Your task to perform on an android device: change the upload size in google photos Image 0: 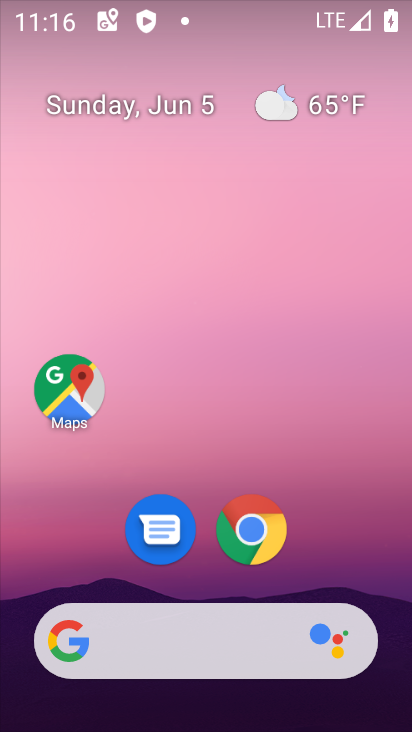
Step 0: drag from (240, 672) to (247, 41)
Your task to perform on an android device: change the upload size in google photos Image 1: 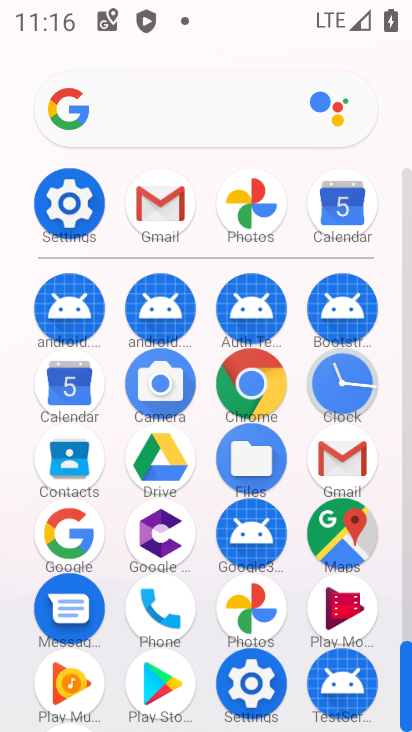
Step 1: click (276, 607)
Your task to perform on an android device: change the upload size in google photos Image 2: 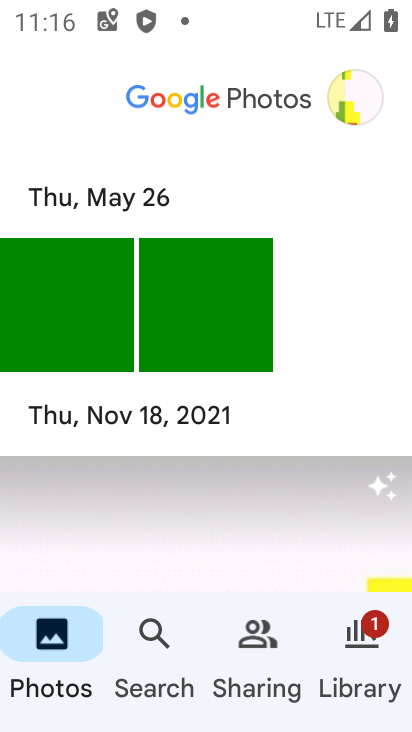
Step 2: click (359, 111)
Your task to perform on an android device: change the upload size in google photos Image 3: 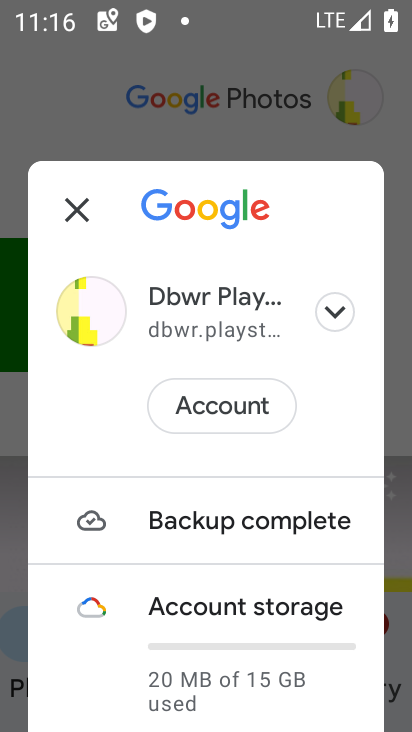
Step 3: drag from (279, 531) to (342, 135)
Your task to perform on an android device: change the upload size in google photos Image 4: 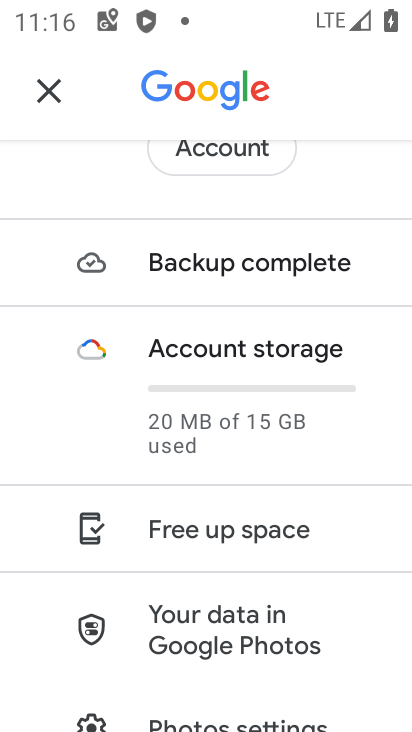
Step 4: click (253, 717)
Your task to perform on an android device: change the upload size in google photos Image 5: 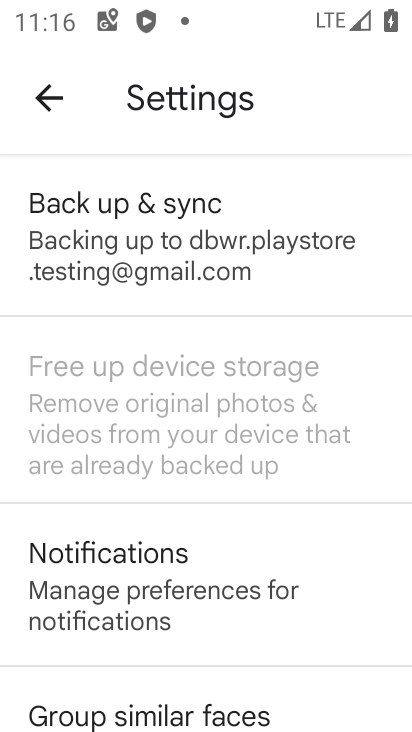
Step 5: drag from (299, 675) to (400, 99)
Your task to perform on an android device: change the upload size in google photos Image 6: 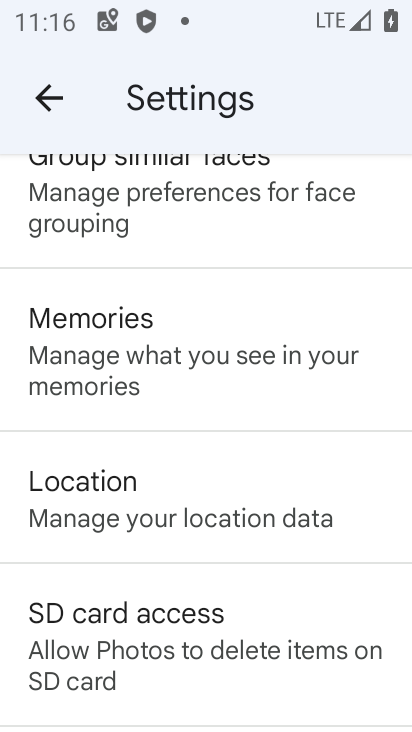
Step 6: drag from (327, 262) to (387, 726)
Your task to perform on an android device: change the upload size in google photos Image 7: 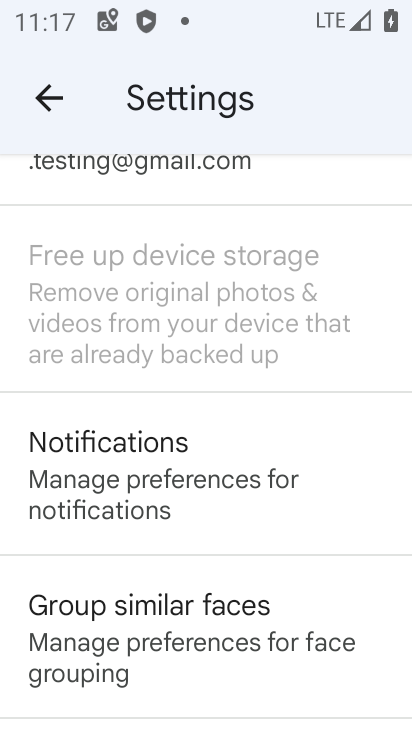
Step 7: drag from (286, 238) to (286, 640)
Your task to perform on an android device: change the upload size in google photos Image 8: 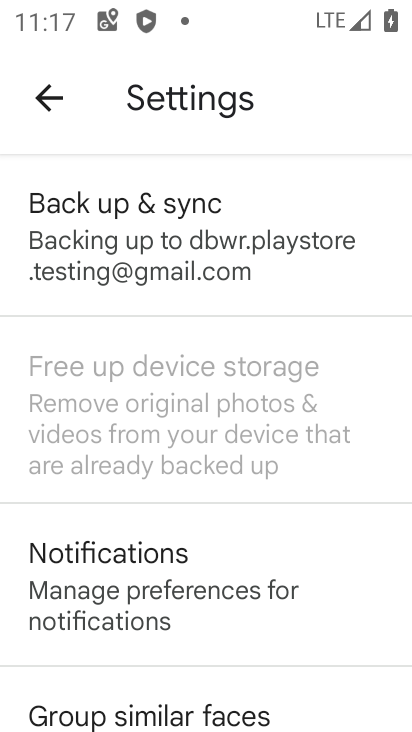
Step 8: drag from (262, 581) to (251, 131)
Your task to perform on an android device: change the upload size in google photos Image 9: 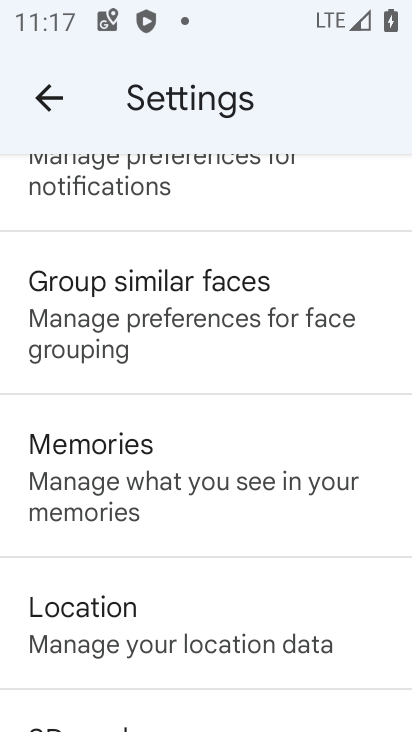
Step 9: drag from (302, 186) to (253, 720)
Your task to perform on an android device: change the upload size in google photos Image 10: 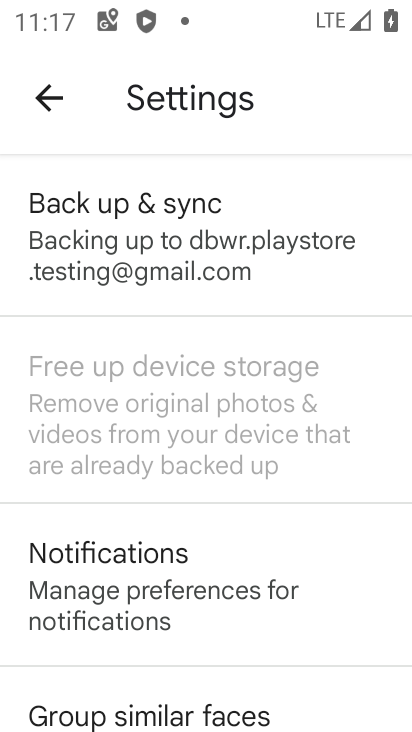
Step 10: click (250, 248)
Your task to perform on an android device: change the upload size in google photos Image 11: 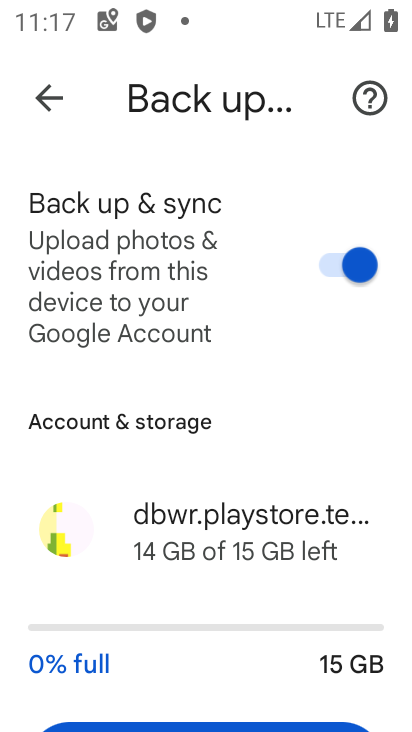
Step 11: drag from (244, 486) to (257, 220)
Your task to perform on an android device: change the upload size in google photos Image 12: 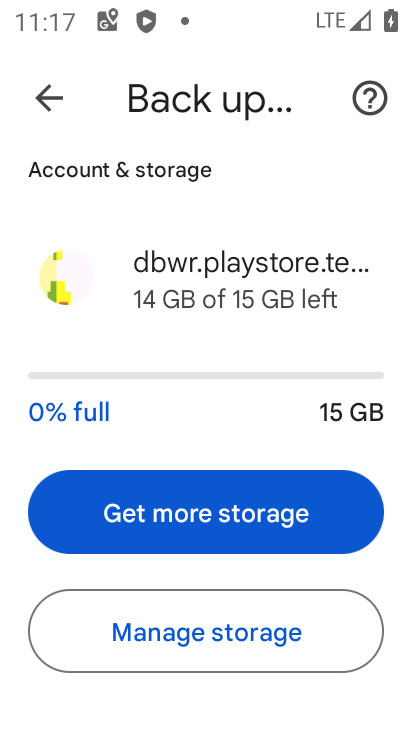
Step 12: drag from (202, 619) to (191, 173)
Your task to perform on an android device: change the upload size in google photos Image 13: 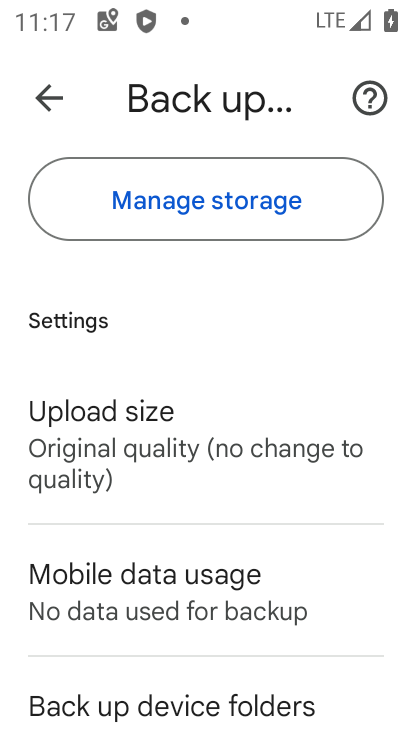
Step 13: click (226, 461)
Your task to perform on an android device: change the upload size in google photos Image 14: 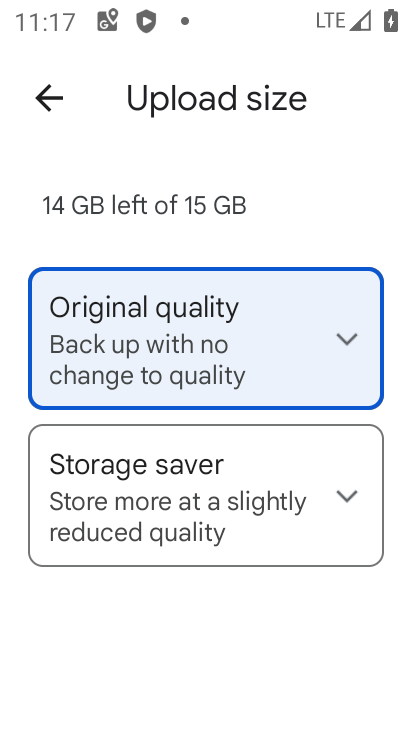
Step 14: click (266, 531)
Your task to perform on an android device: change the upload size in google photos Image 15: 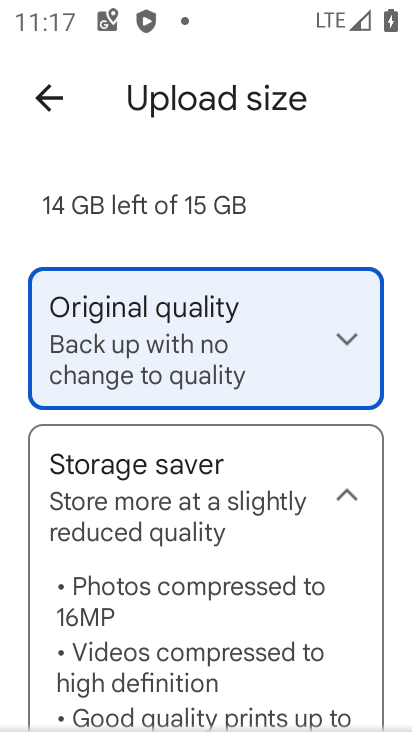
Step 15: task complete